Your task to perform on an android device: Open Youtube and go to "Your channel" Image 0: 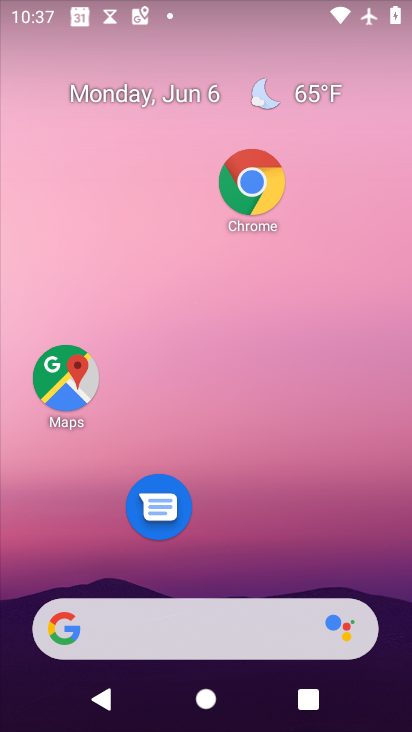
Step 0: drag from (350, 582) to (315, 162)
Your task to perform on an android device: Open Youtube and go to "Your channel" Image 1: 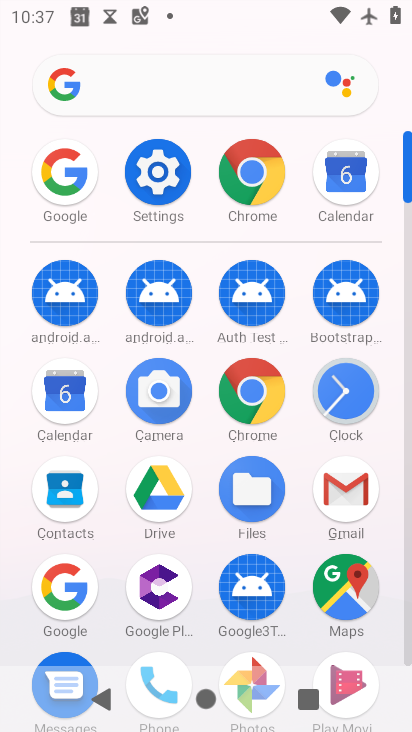
Step 1: drag from (280, 609) to (252, 368)
Your task to perform on an android device: Open Youtube and go to "Your channel" Image 2: 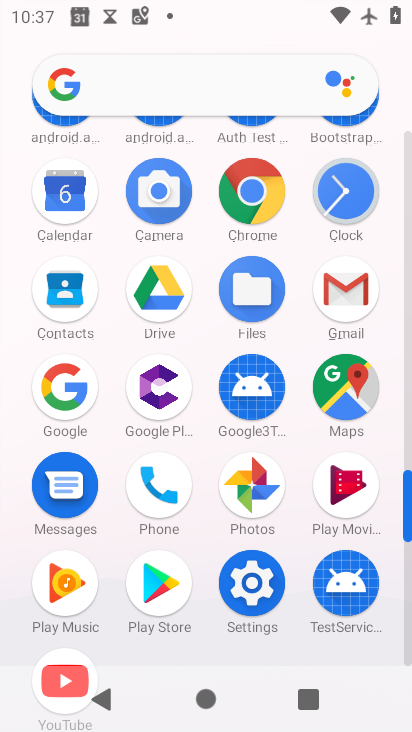
Step 2: click (65, 656)
Your task to perform on an android device: Open Youtube and go to "Your channel" Image 3: 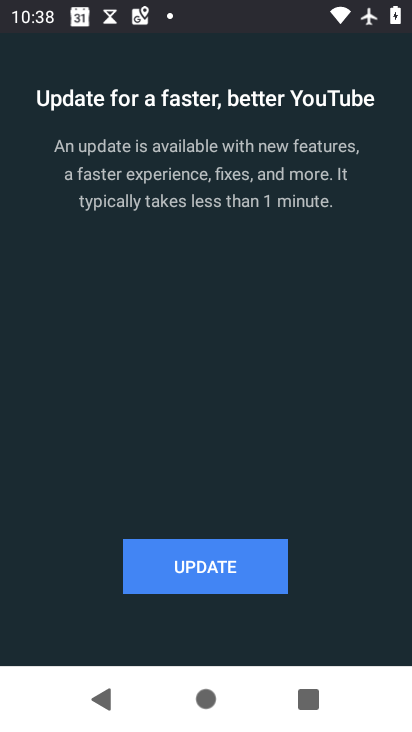
Step 3: task complete